Your task to perform on an android device: Open internet settings Image 0: 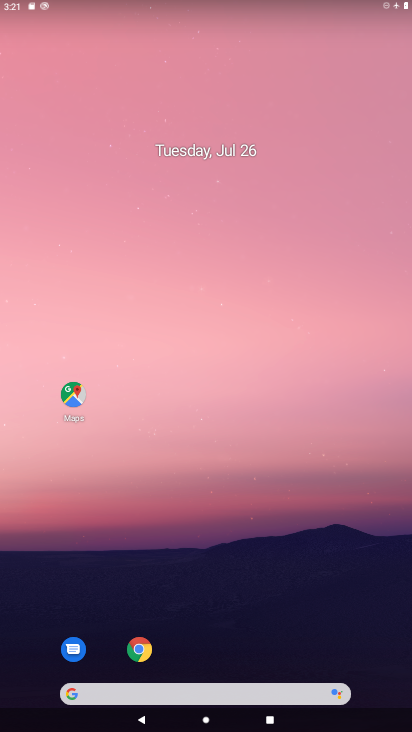
Step 0: drag from (223, 693) to (219, 60)
Your task to perform on an android device: Open internet settings Image 1: 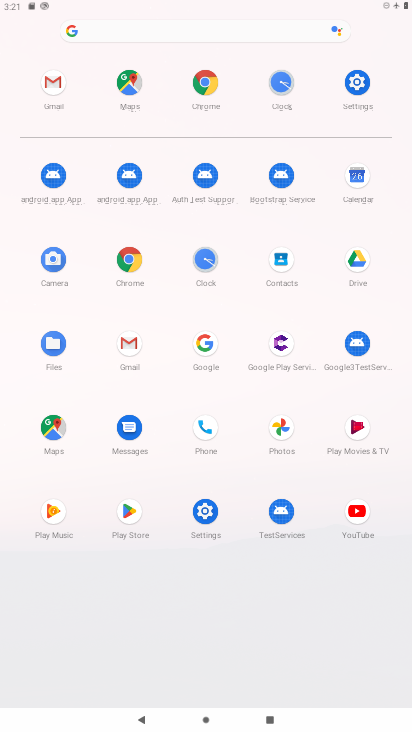
Step 1: click (367, 92)
Your task to perform on an android device: Open internet settings Image 2: 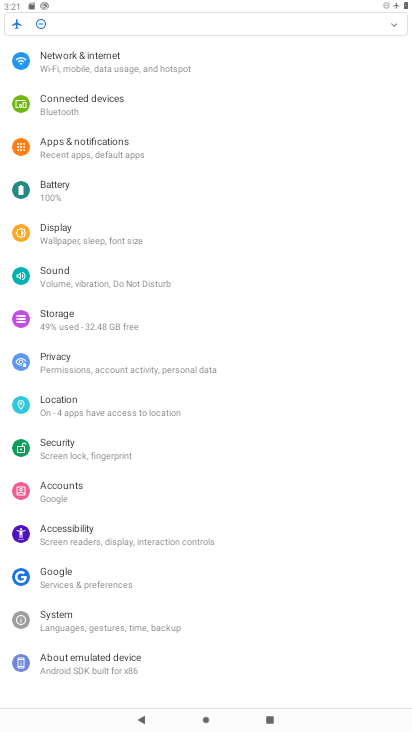
Step 2: click (123, 73)
Your task to perform on an android device: Open internet settings Image 3: 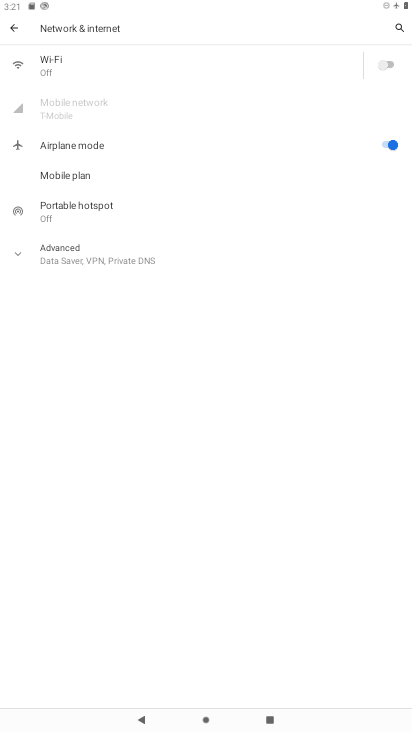
Step 3: task complete